Your task to perform on an android device: open a bookmark in the chrome app Image 0: 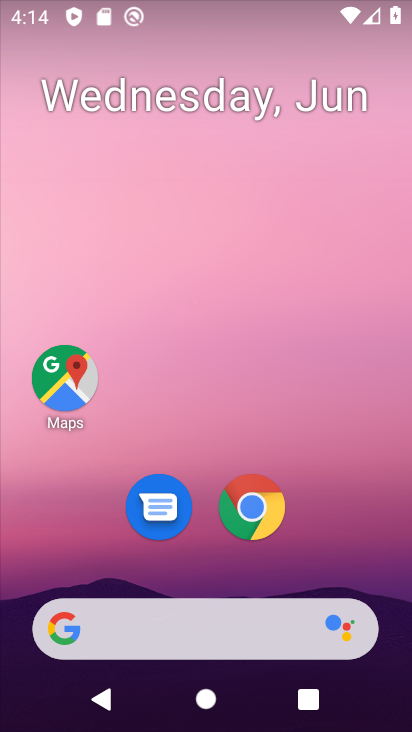
Step 0: click (268, 534)
Your task to perform on an android device: open a bookmark in the chrome app Image 1: 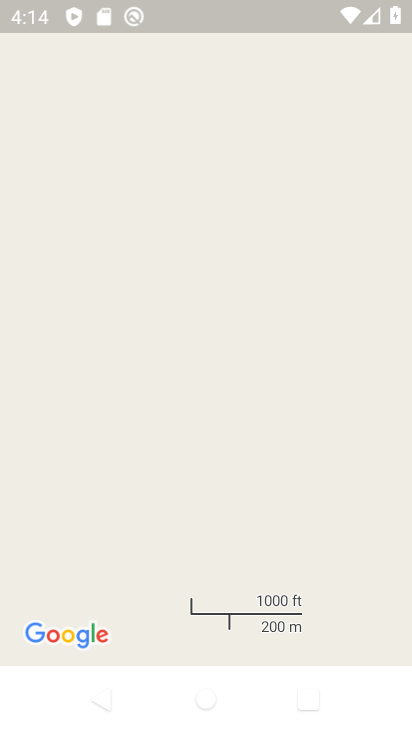
Step 1: press home button
Your task to perform on an android device: open a bookmark in the chrome app Image 2: 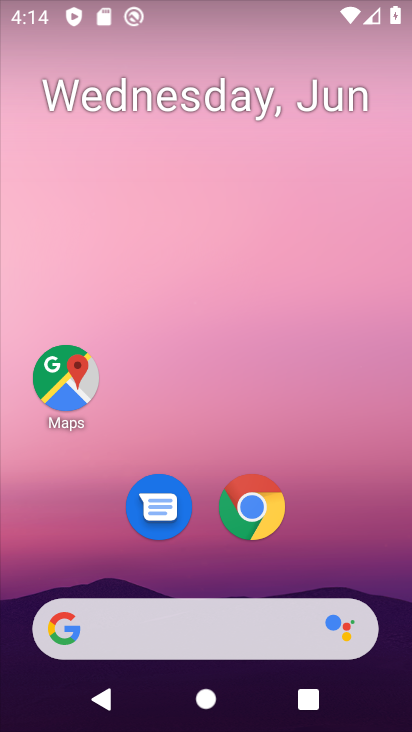
Step 2: click (272, 499)
Your task to perform on an android device: open a bookmark in the chrome app Image 3: 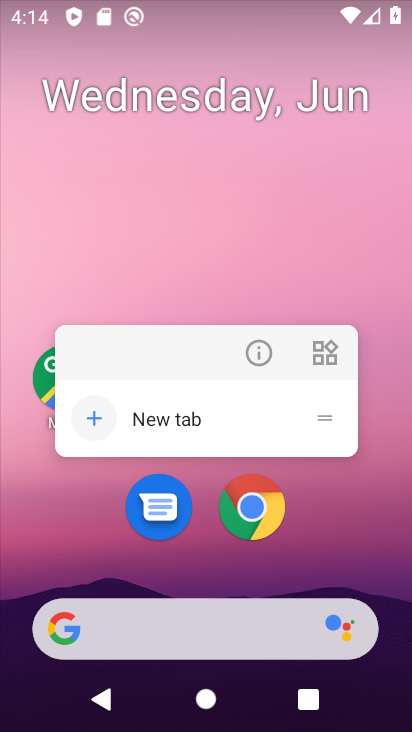
Step 3: click (256, 505)
Your task to perform on an android device: open a bookmark in the chrome app Image 4: 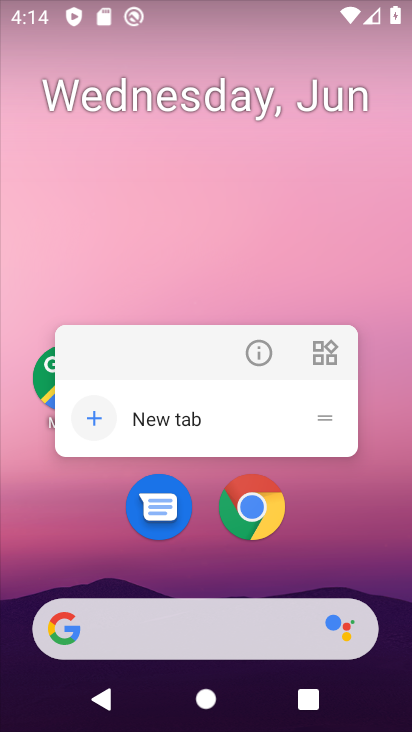
Step 4: click (253, 518)
Your task to perform on an android device: open a bookmark in the chrome app Image 5: 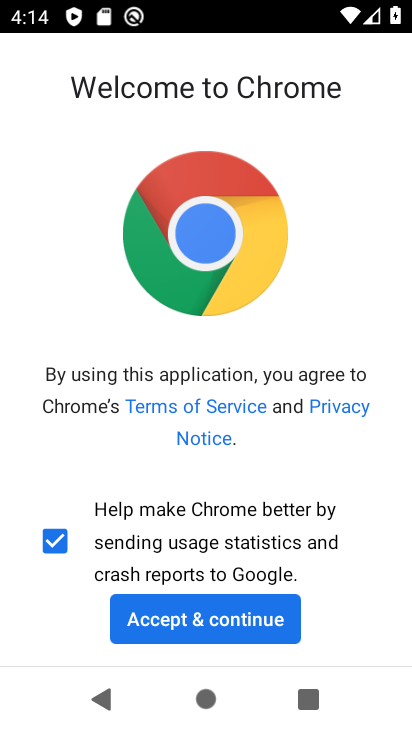
Step 5: click (239, 637)
Your task to perform on an android device: open a bookmark in the chrome app Image 6: 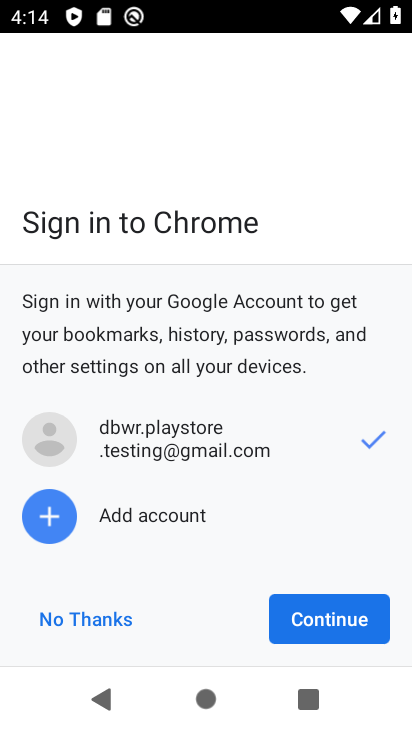
Step 6: click (325, 632)
Your task to perform on an android device: open a bookmark in the chrome app Image 7: 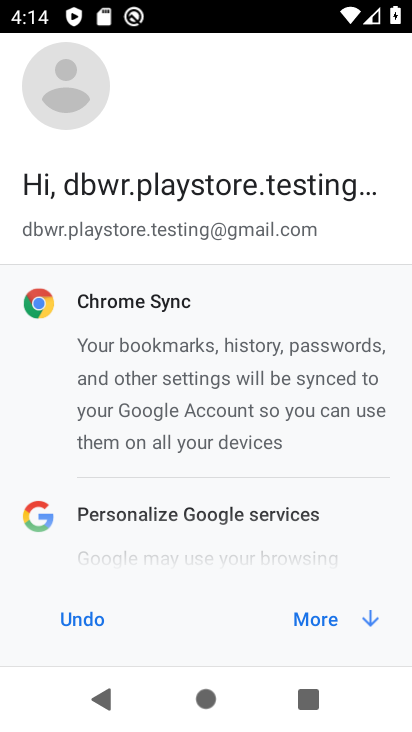
Step 7: click (324, 632)
Your task to perform on an android device: open a bookmark in the chrome app Image 8: 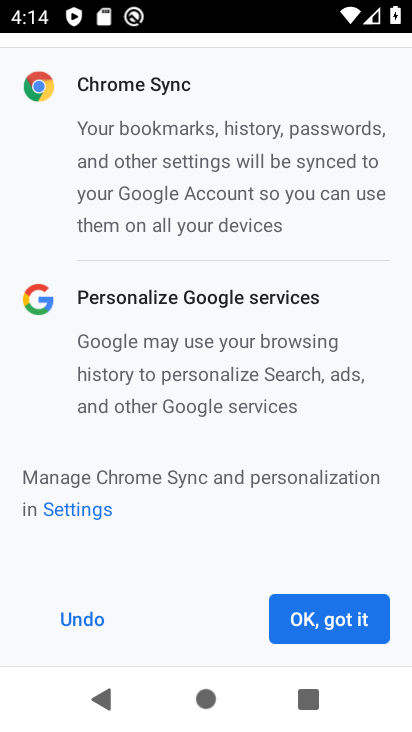
Step 8: click (368, 631)
Your task to perform on an android device: open a bookmark in the chrome app Image 9: 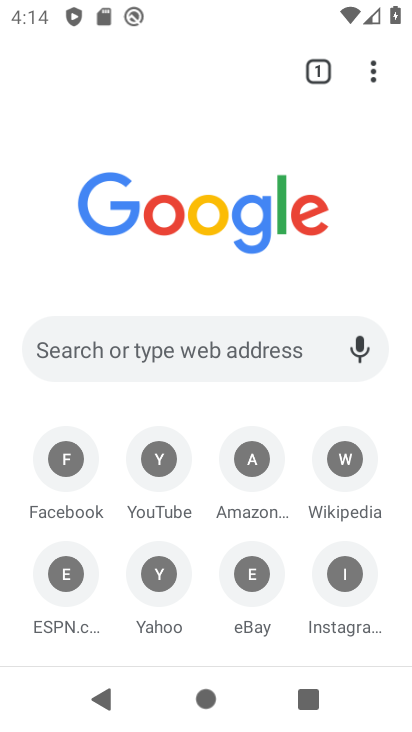
Step 9: task complete